Your task to perform on an android device: change the clock style Image 0: 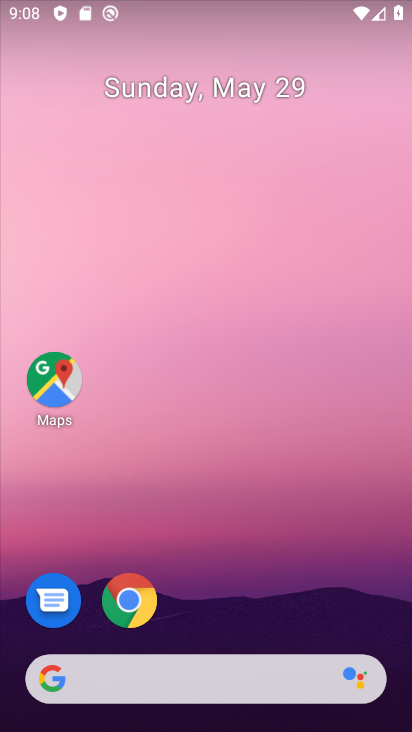
Step 0: drag from (270, 593) to (294, 14)
Your task to perform on an android device: change the clock style Image 1: 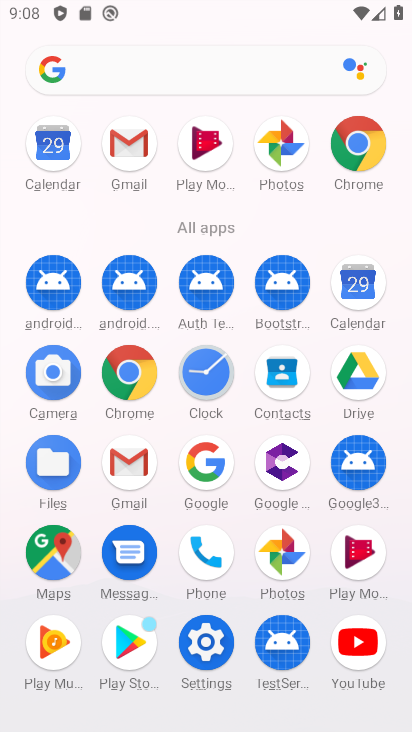
Step 1: click (216, 366)
Your task to perform on an android device: change the clock style Image 2: 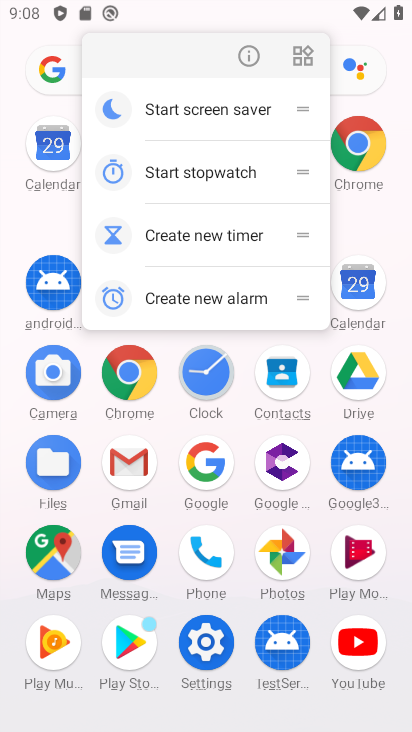
Step 2: click (207, 369)
Your task to perform on an android device: change the clock style Image 3: 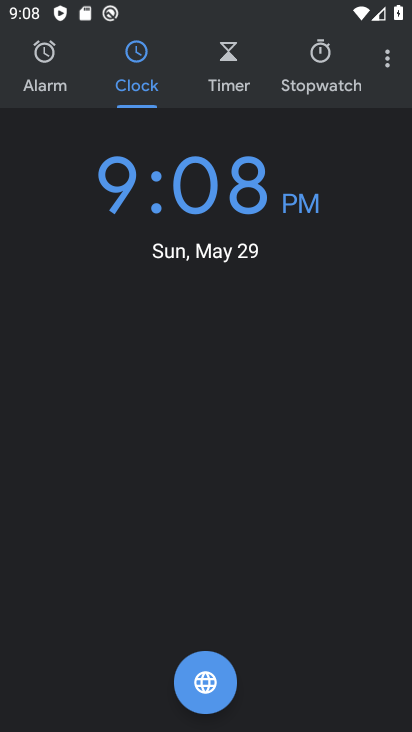
Step 3: click (393, 62)
Your task to perform on an android device: change the clock style Image 4: 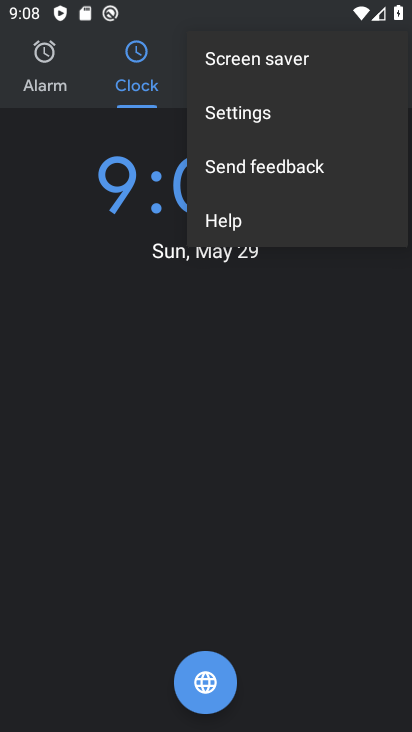
Step 4: click (246, 124)
Your task to perform on an android device: change the clock style Image 5: 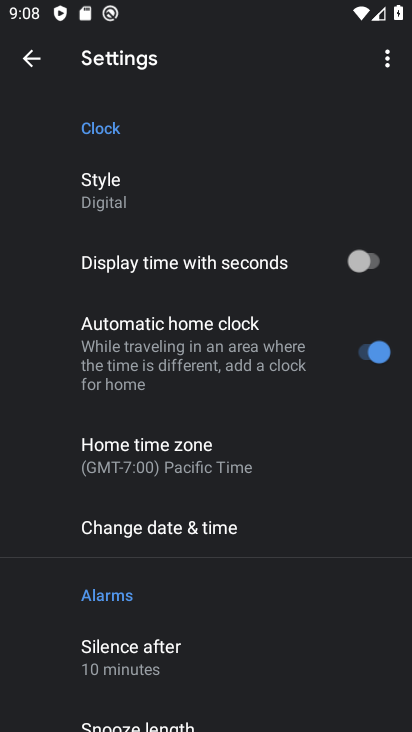
Step 5: click (97, 182)
Your task to perform on an android device: change the clock style Image 6: 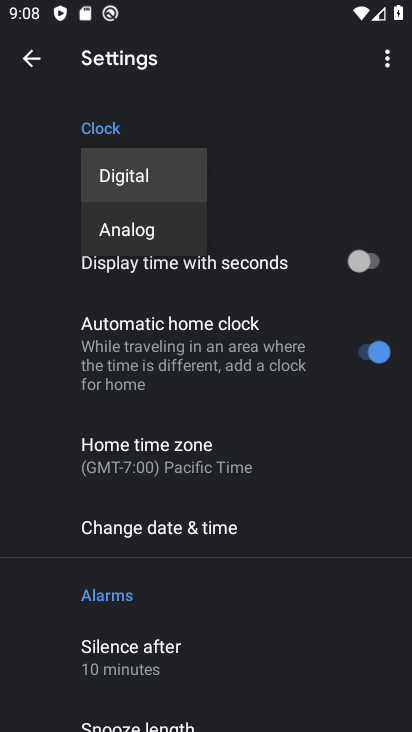
Step 6: click (128, 229)
Your task to perform on an android device: change the clock style Image 7: 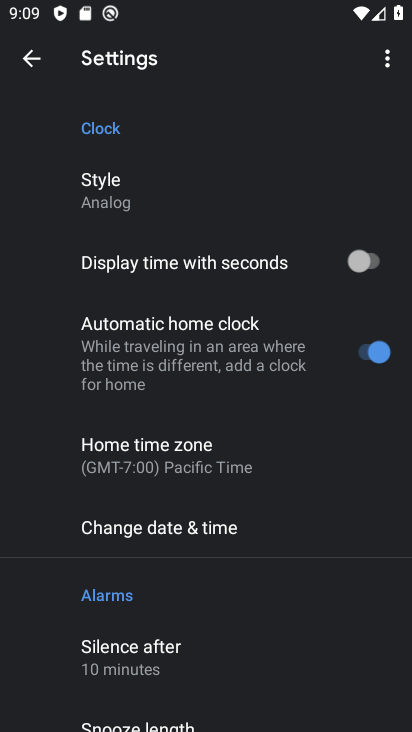
Step 7: task complete